Your task to perform on an android device: add a contact Image 0: 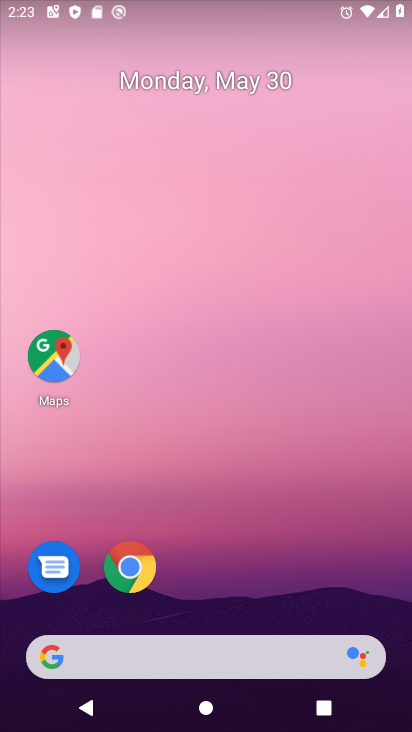
Step 0: drag from (199, 490) to (228, 186)
Your task to perform on an android device: add a contact Image 1: 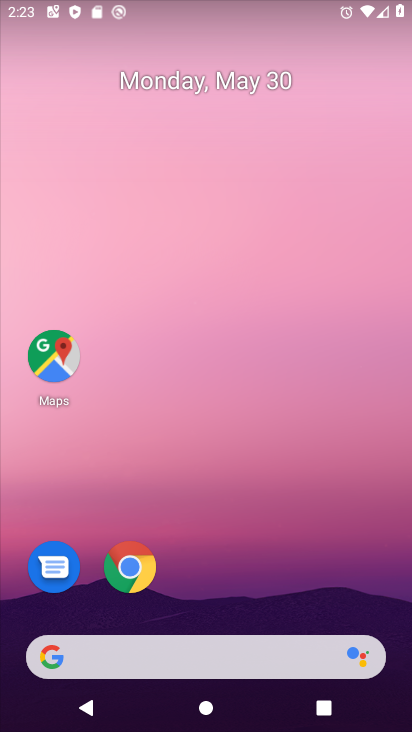
Step 1: drag from (206, 627) to (240, 88)
Your task to perform on an android device: add a contact Image 2: 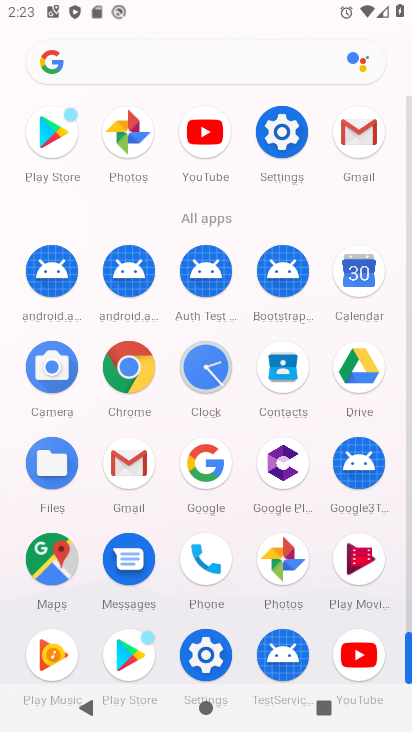
Step 2: click (287, 375)
Your task to perform on an android device: add a contact Image 3: 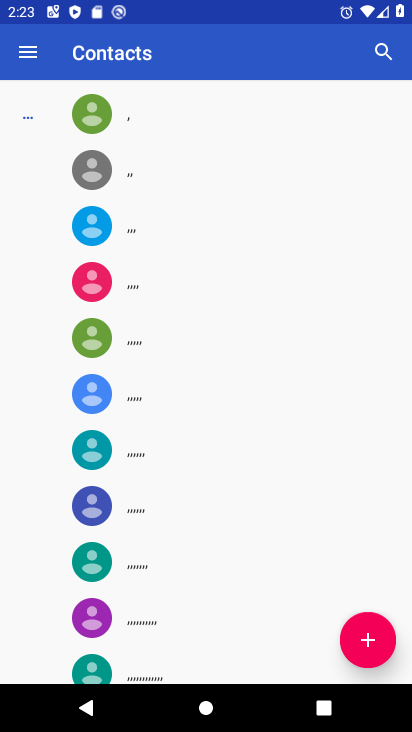
Step 3: click (362, 631)
Your task to perform on an android device: add a contact Image 4: 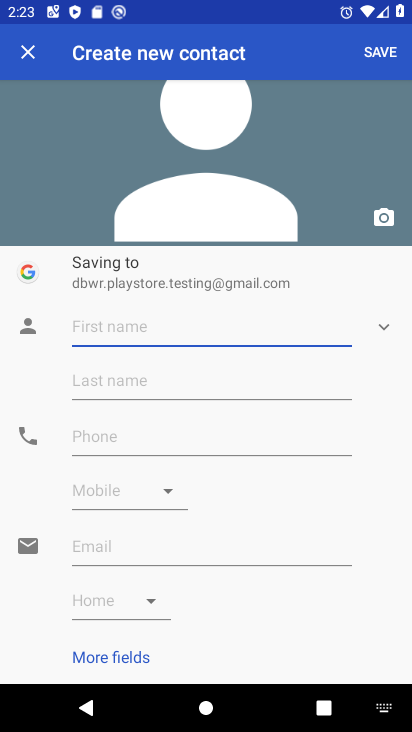
Step 4: type ""
Your task to perform on an android device: add a contact Image 5: 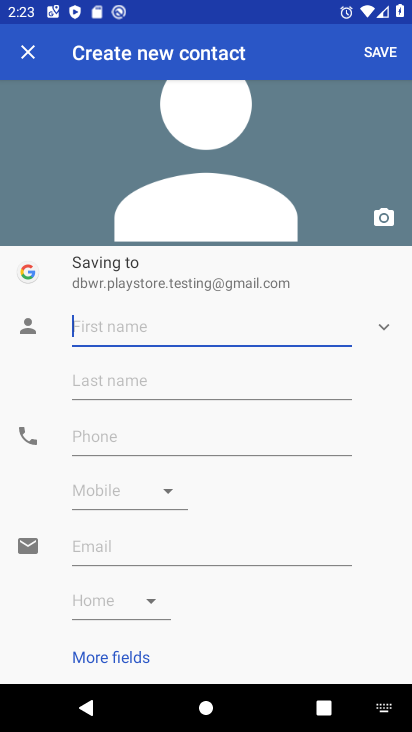
Step 5: type "fictious"
Your task to perform on an android device: add a contact Image 6: 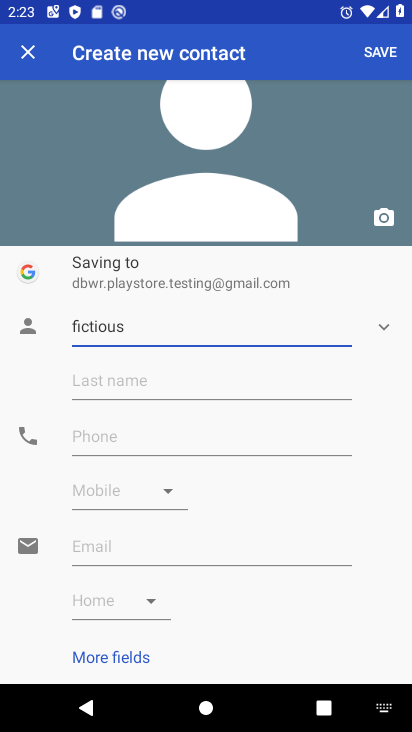
Step 6: click (382, 48)
Your task to perform on an android device: add a contact Image 7: 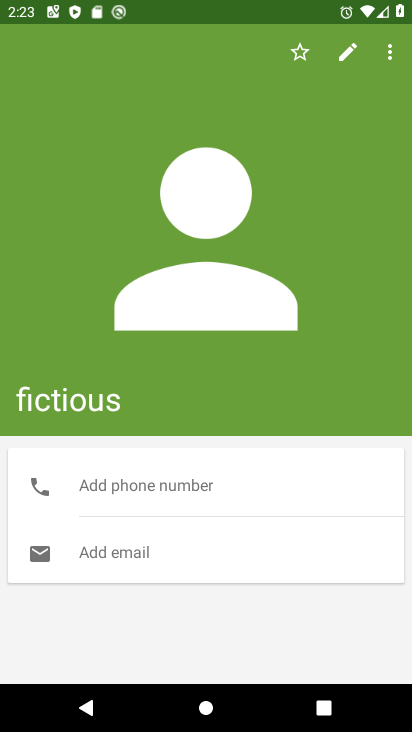
Step 7: task complete